Your task to perform on an android device: turn notification dots off Image 0: 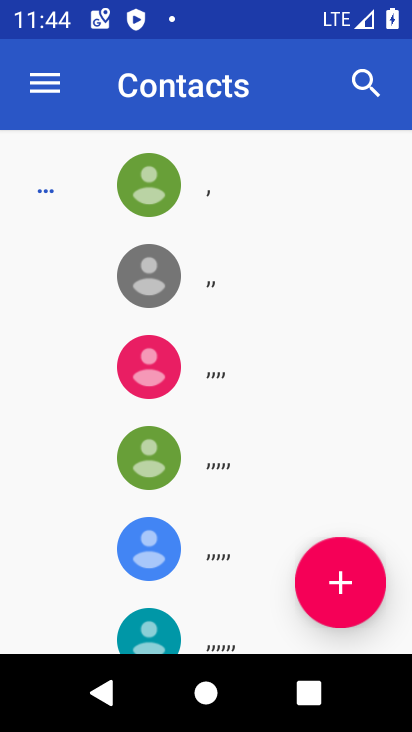
Step 0: press back button
Your task to perform on an android device: turn notification dots off Image 1: 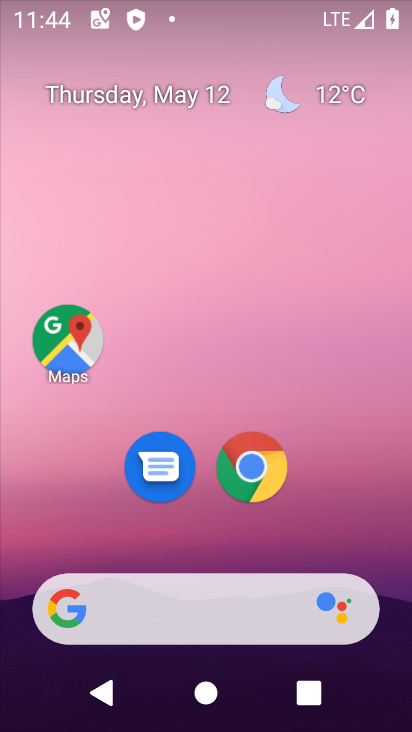
Step 1: drag from (341, 516) to (270, 121)
Your task to perform on an android device: turn notification dots off Image 2: 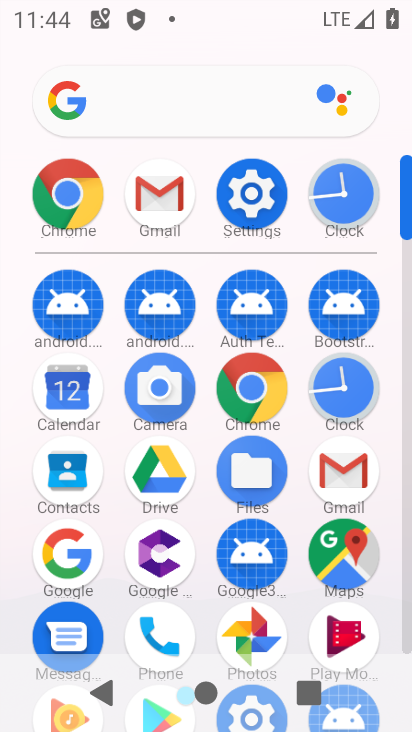
Step 2: click (248, 192)
Your task to perform on an android device: turn notification dots off Image 3: 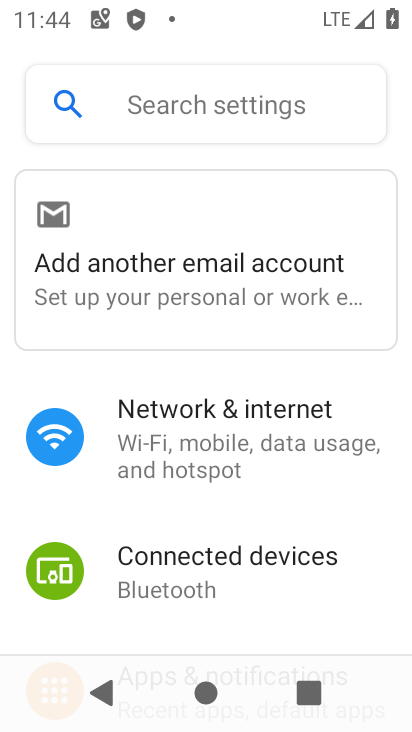
Step 3: drag from (300, 544) to (271, 178)
Your task to perform on an android device: turn notification dots off Image 4: 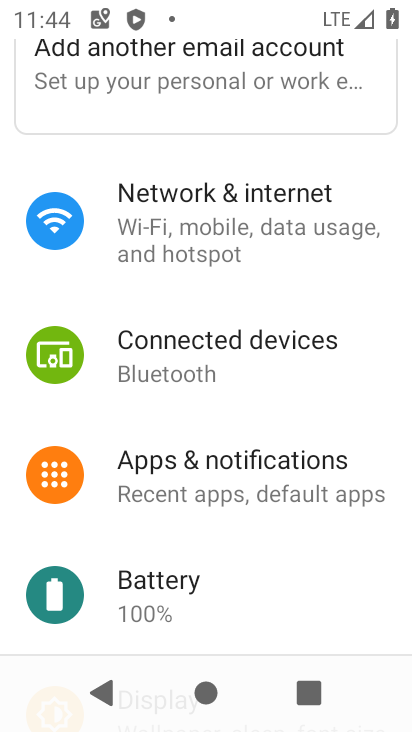
Step 4: click (204, 460)
Your task to perform on an android device: turn notification dots off Image 5: 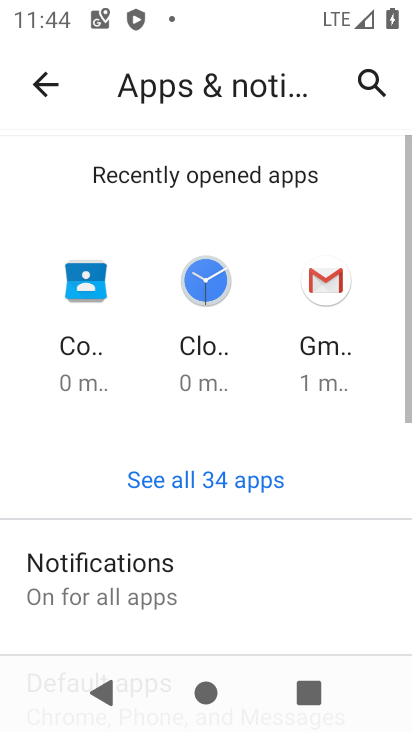
Step 5: drag from (289, 603) to (269, 229)
Your task to perform on an android device: turn notification dots off Image 6: 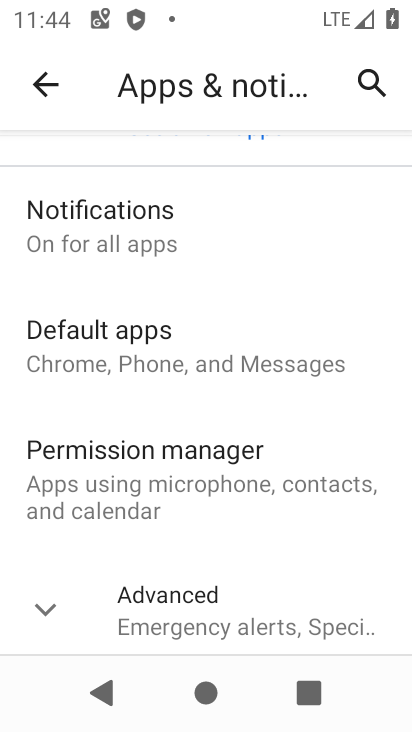
Step 6: click (205, 237)
Your task to perform on an android device: turn notification dots off Image 7: 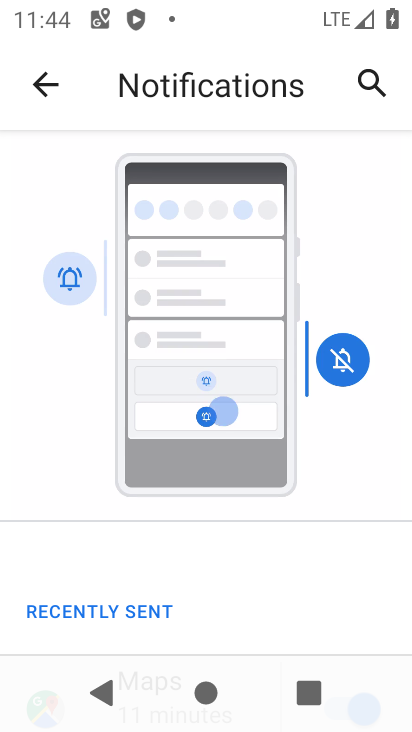
Step 7: drag from (219, 525) to (218, 127)
Your task to perform on an android device: turn notification dots off Image 8: 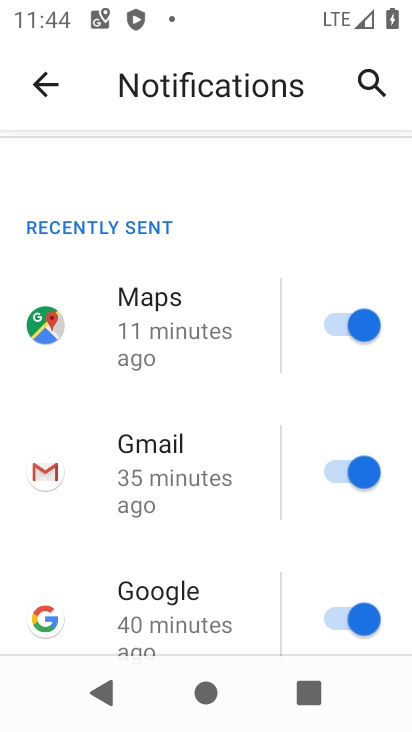
Step 8: drag from (154, 533) to (195, 155)
Your task to perform on an android device: turn notification dots off Image 9: 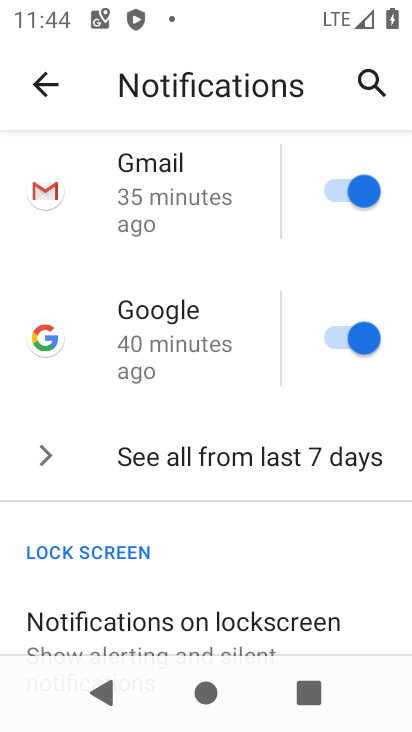
Step 9: drag from (195, 507) to (215, 143)
Your task to perform on an android device: turn notification dots off Image 10: 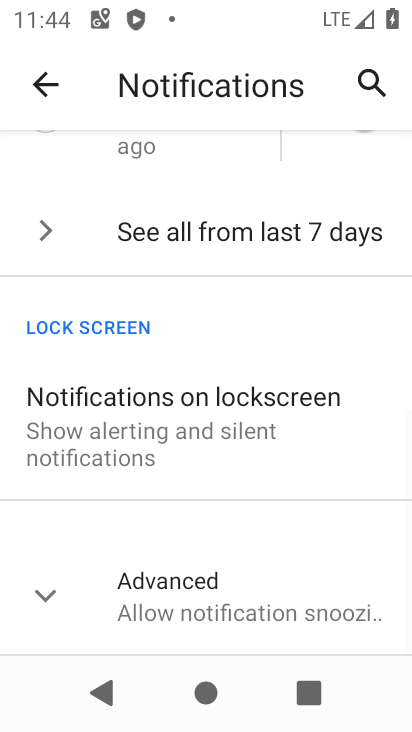
Step 10: drag from (191, 591) to (178, 368)
Your task to perform on an android device: turn notification dots off Image 11: 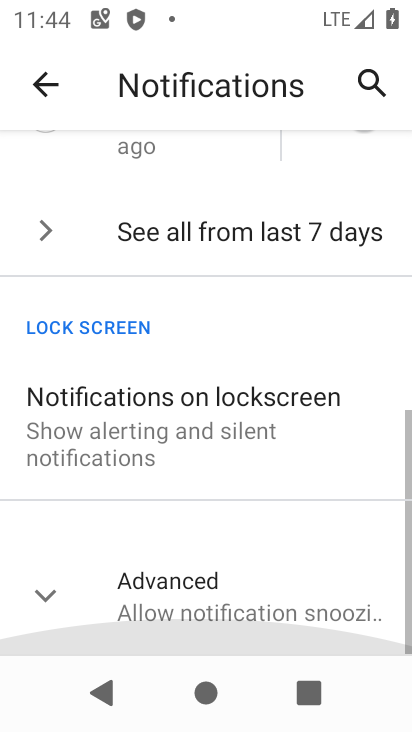
Step 11: click (73, 578)
Your task to perform on an android device: turn notification dots off Image 12: 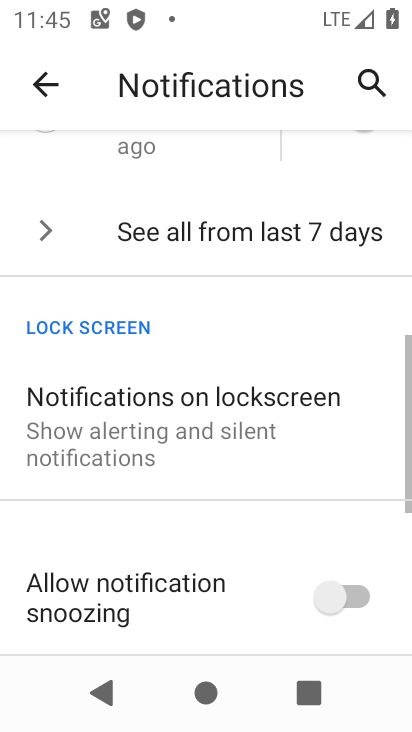
Step 12: drag from (153, 627) to (135, 191)
Your task to perform on an android device: turn notification dots off Image 13: 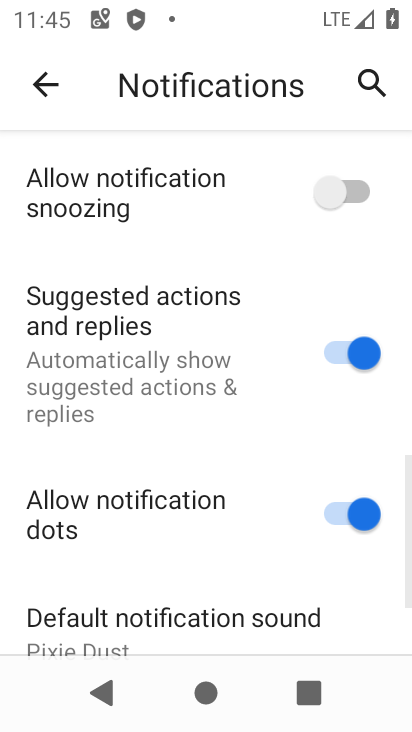
Step 13: drag from (210, 549) to (194, 181)
Your task to perform on an android device: turn notification dots off Image 14: 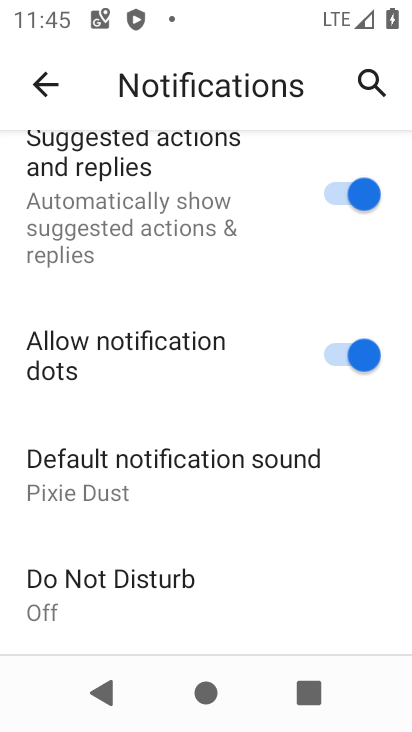
Step 14: click (326, 350)
Your task to perform on an android device: turn notification dots off Image 15: 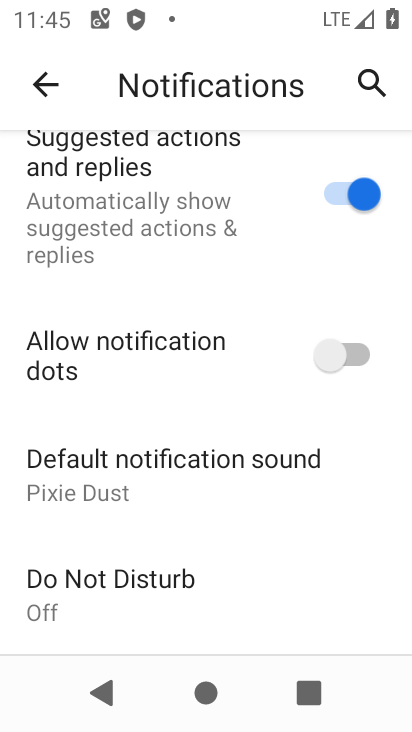
Step 15: task complete